Your task to perform on an android device: toggle pop-ups in chrome Image 0: 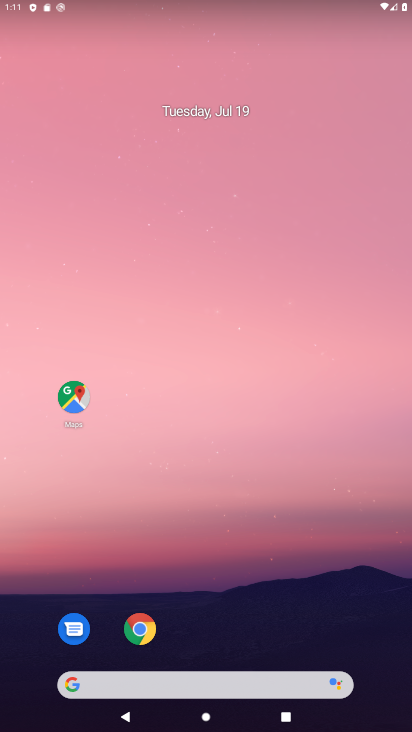
Step 0: click (152, 621)
Your task to perform on an android device: toggle pop-ups in chrome Image 1: 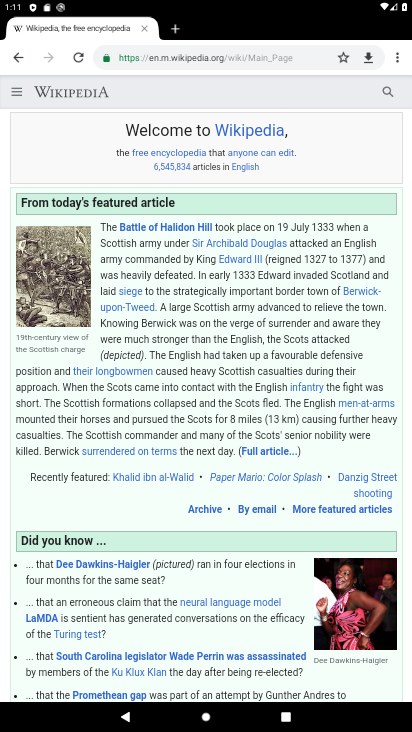
Step 1: click (400, 51)
Your task to perform on an android device: toggle pop-ups in chrome Image 2: 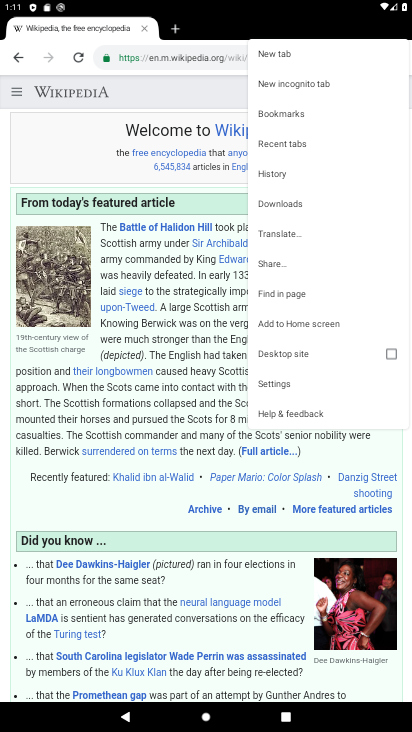
Step 2: click (304, 385)
Your task to perform on an android device: toggle pop-ups in chrome Image 3: 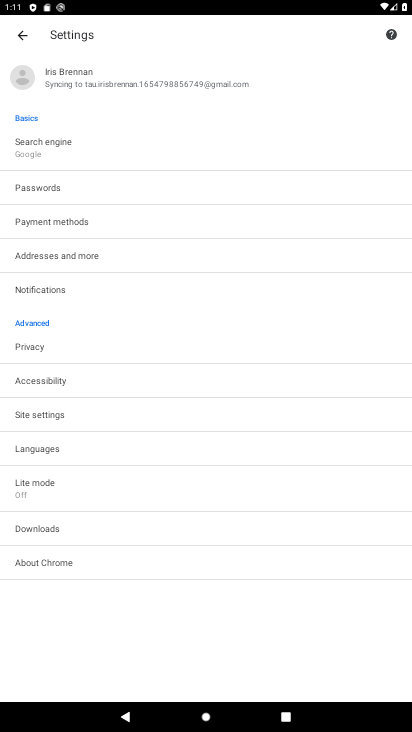
Step 3: click (73, 411)
Your task to perform on an android device: toggle pop-ups in chrome Image 4: 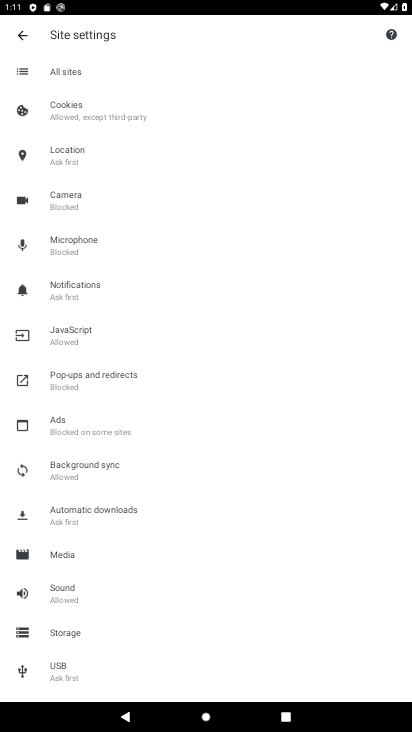
Step 4: click (117, 387)
Your task to perform on an android device: toggle pop-ups in chrome Image 5: 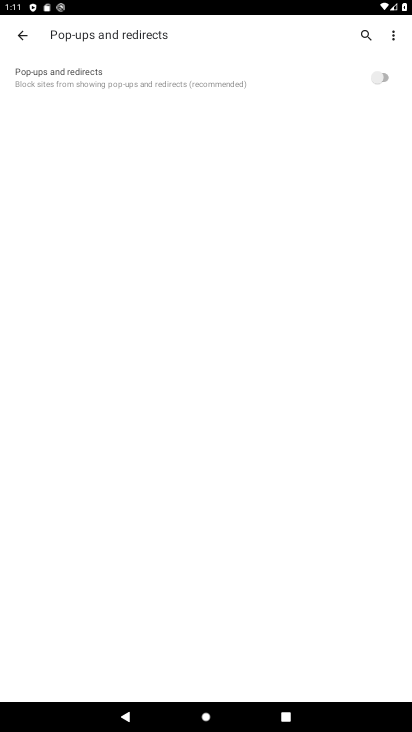
Step 5: click (394, 79)
Your task to perform on an android device: toggle pop-ups in chrome Image 6: 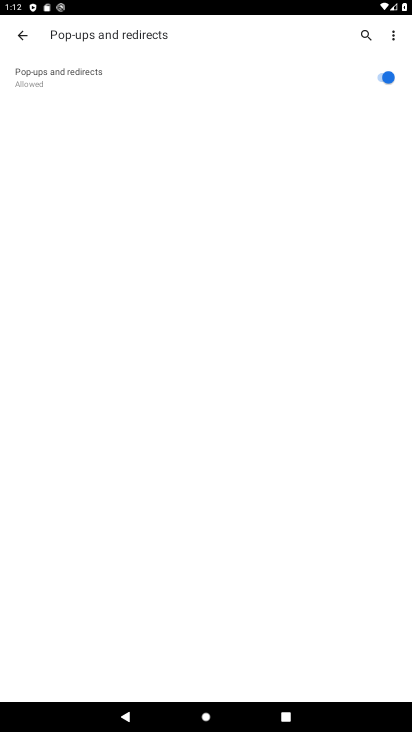
Step 6: task complete